Your task to perform on an android device: toggle airplane mode Image 0: 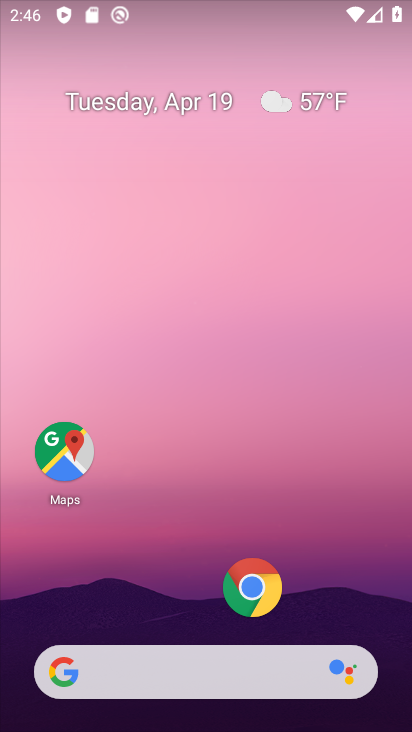
Step 0: drag from (189, 596) to (270, 81)
Your task to perform on an android device: toggle airplane mode Image 1: 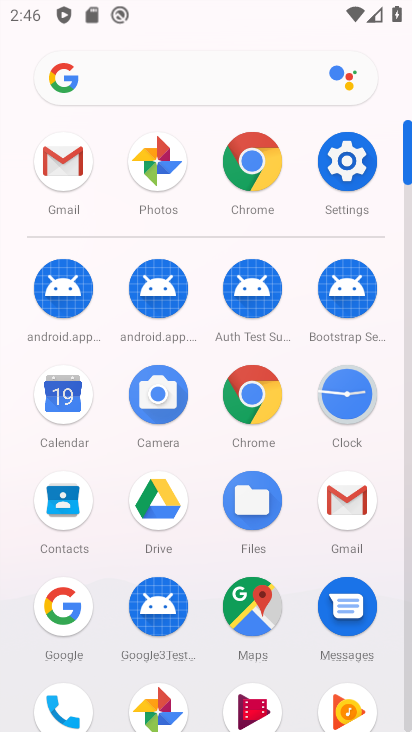
Step 1: click (354, 174)
Your task to perform on an android device: toggle airplane mode Image 2: 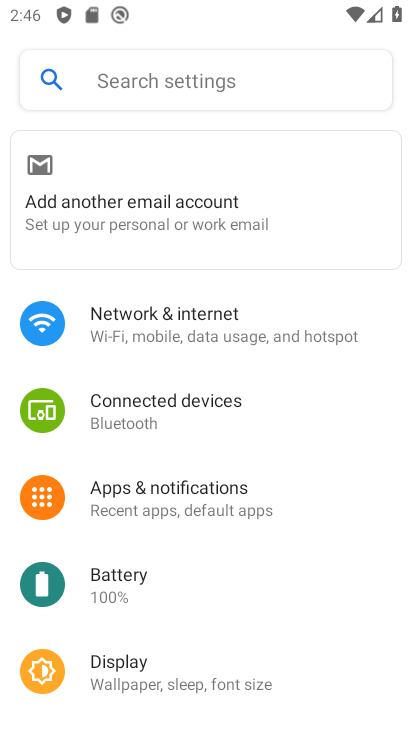
Step 2: click (205, 318)
Your task to perform on an android device: toggle airplane mode Image 3: 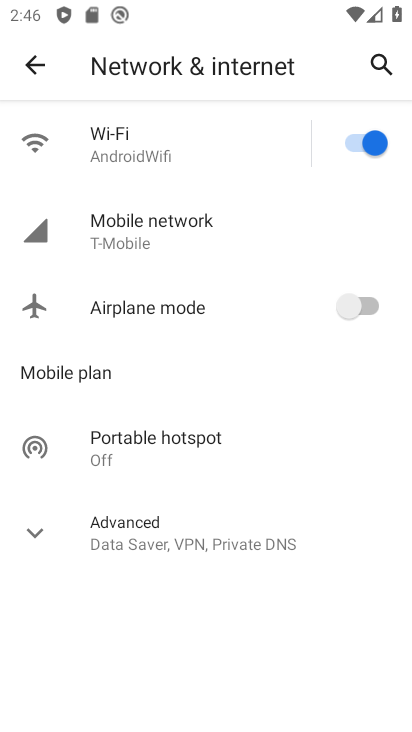
Step 3: click (367, 307)
Your task to perform on an android device: toggle airplane mode Image 4: 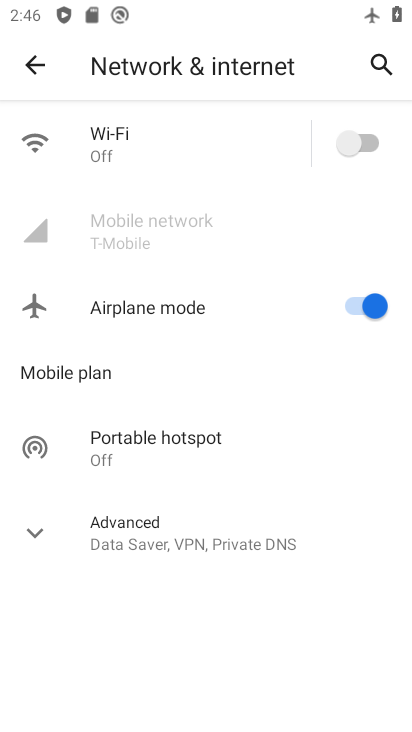
Step 4: task complete